Your task to perform on an android device: Turn off the flashlight Image 0: 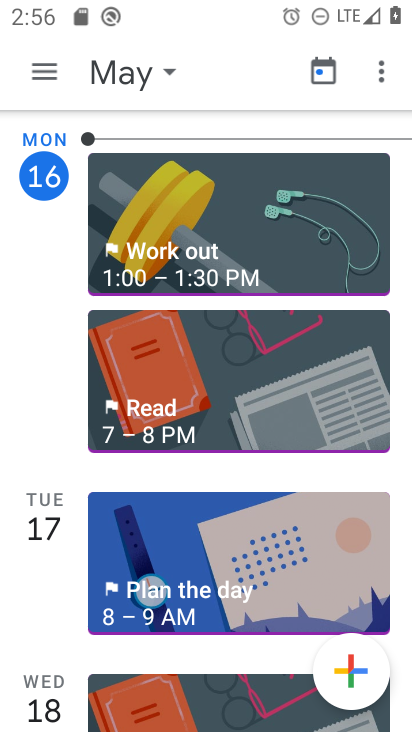
Step 0: press home button
Your task to perform on an android device: Turn off the flashlight Image 1: 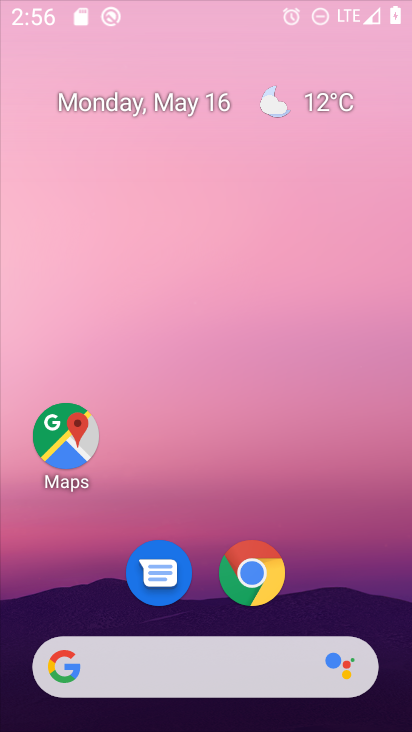
Step 1: task complete